Your task to perform on an android device: Go to ESPN.com Image 0: 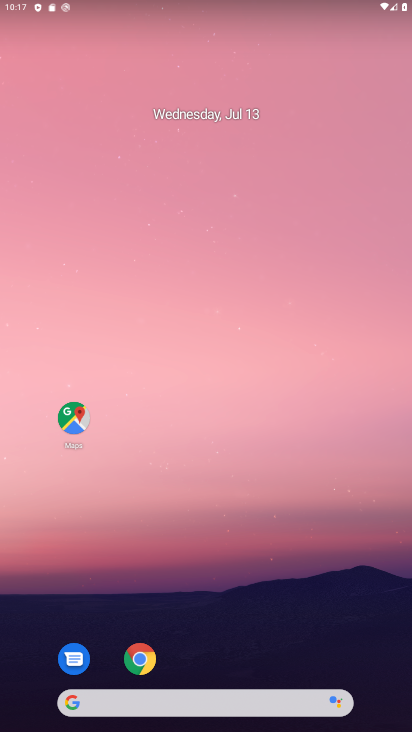
Step 0: drag from (318, 576) to (263, 135)
Your task to perform on an android device: Go to ESPN.com Image 1: 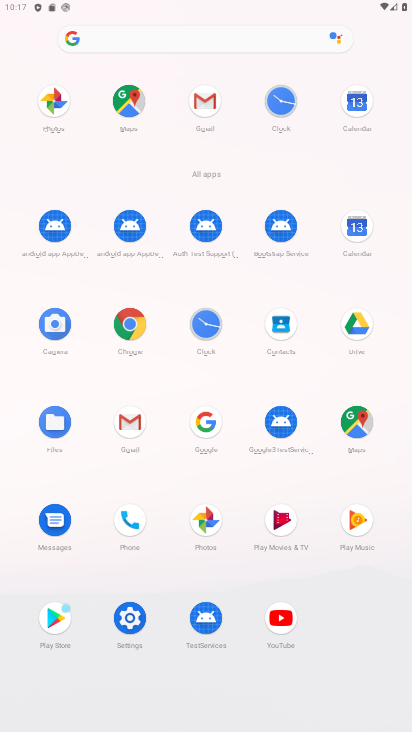
Step 1: click (128, 325)
Your task to perform on an android device: Go to ESPN.com Image 2: 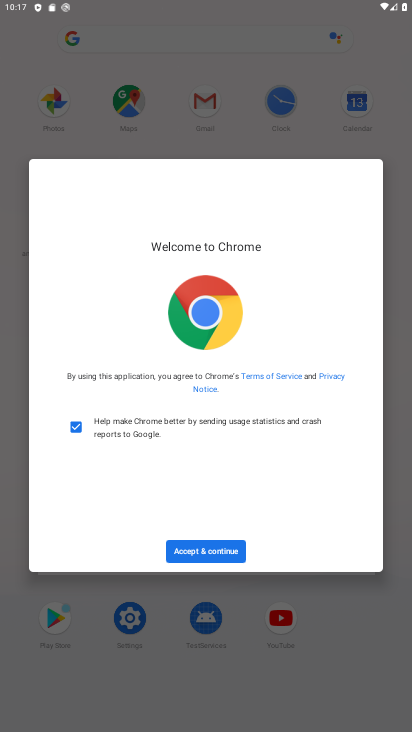
Step 2: click (237, 545)
Your task to perform on an android device: Go to ESPN.com Image 3: 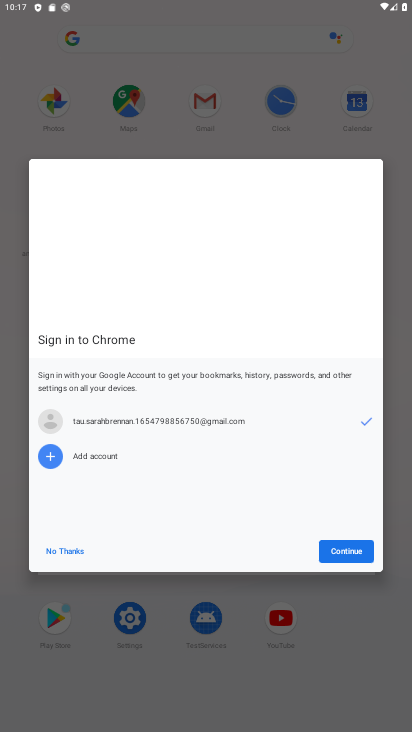
Step 3: click (327, 549)
Your task to perform on an android device: Go to ESPN.com Image 4: 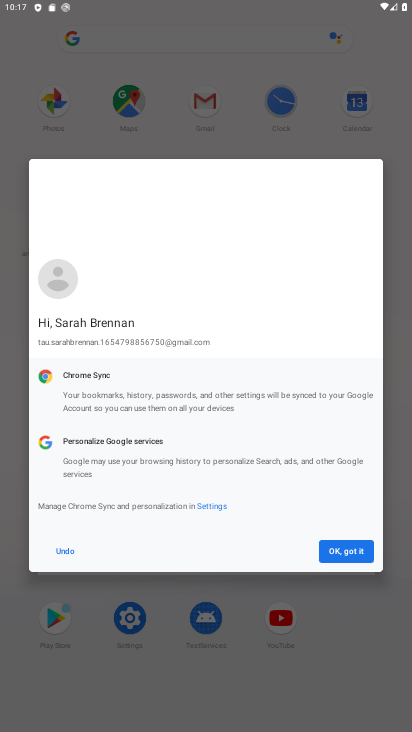
Step 4: click (327, 549)
Your task to perform on an android device: Go to ESPN.com Image 5: 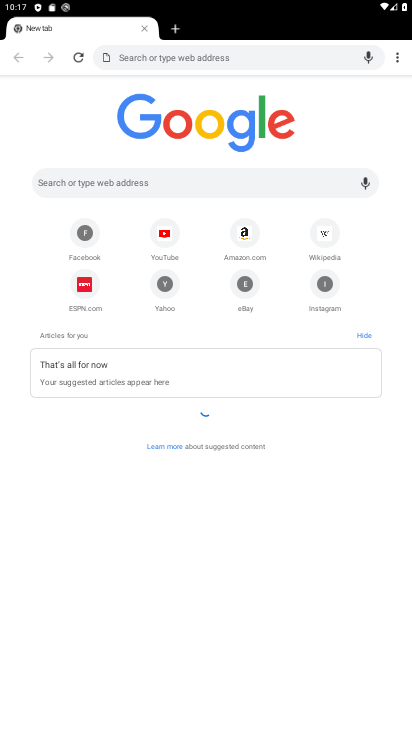
Step 5: click (238, 58)
Your task to perform on an android device: Go to ESPN.com Image 6: 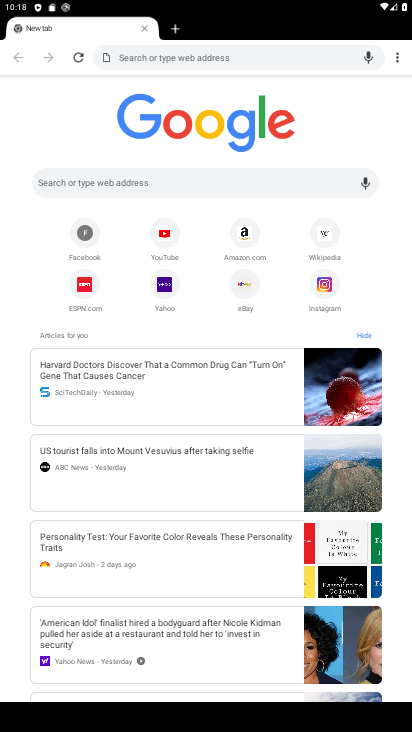
Step 6: type "espn.com"
Your task to perform on an android device: Go to ESPN.com Image 7: 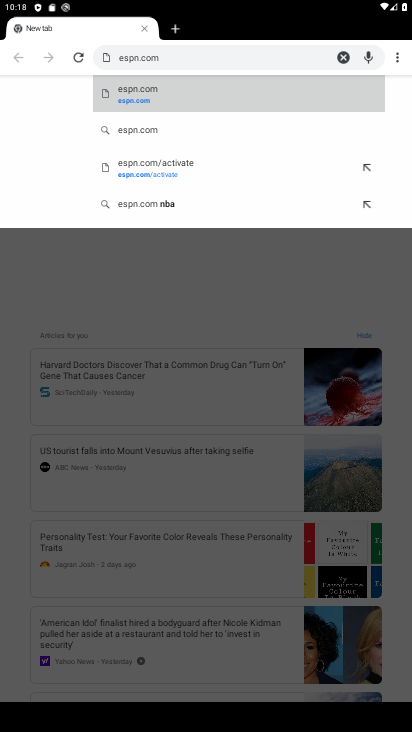
Step 7: click (136, 102)
Your task to perform on an android device: Go to ESPN.com Image 8: 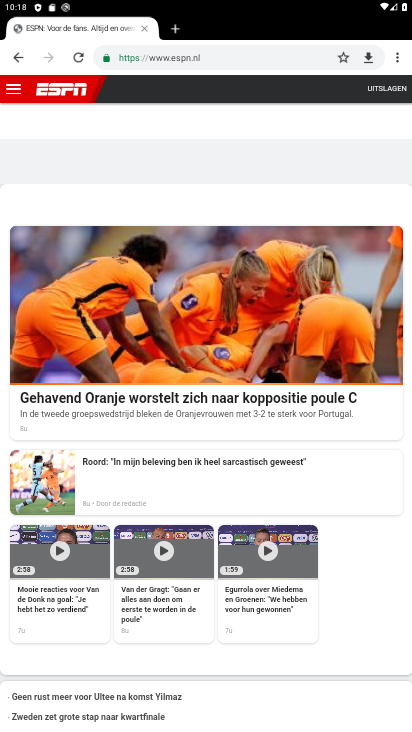
Step 8: task complete